Your task to perform on an android device: Is it going to rain tomorrow? Image 0: 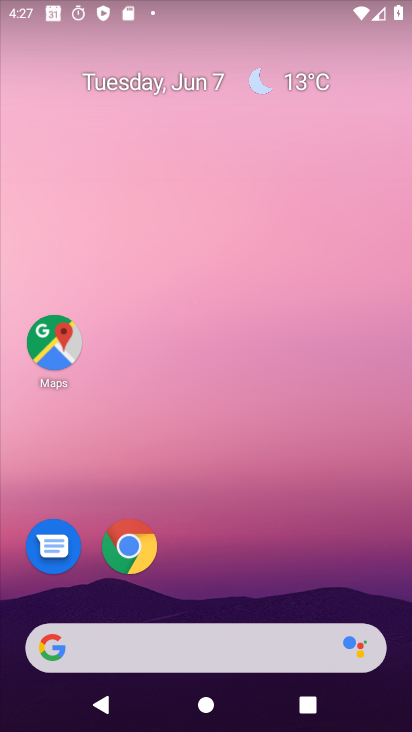
Step 0: click (303, 91)
Your task to perform on an android device: Is it going to rain tomorrow? Image 1: 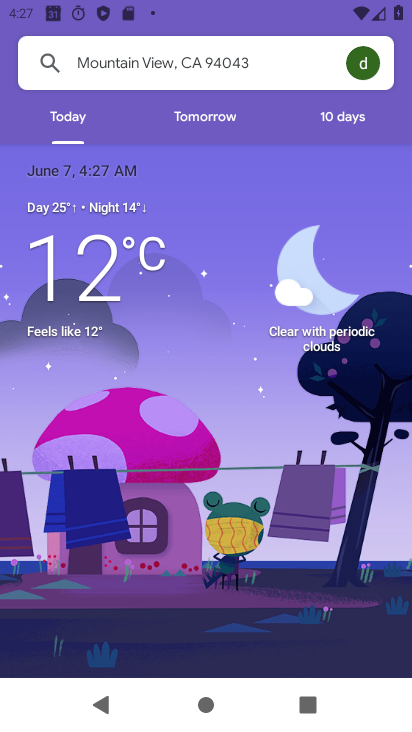
Step 1: click (208, 129)
Your task to perform on an android device: Is it going to rain tomorrow? Image 2: 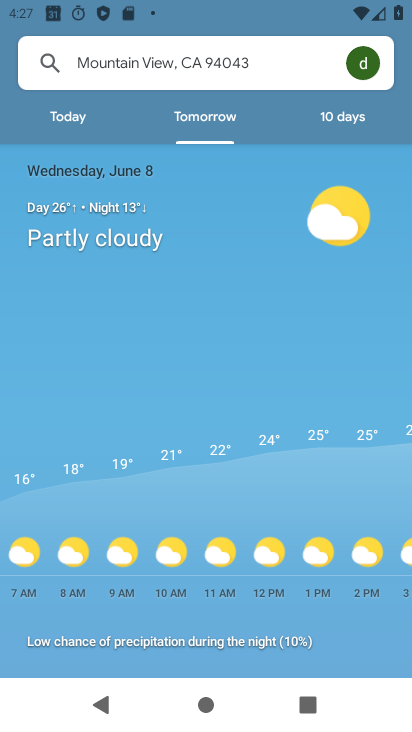
Step 2: task complete